Your task to perform on an android device: check google app version Image 0: 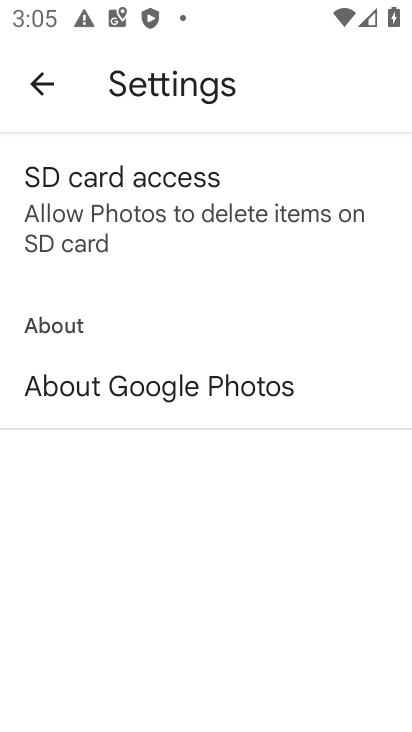
Step 0: press home button
Your task to perform on an android device: check google app version Image 1: 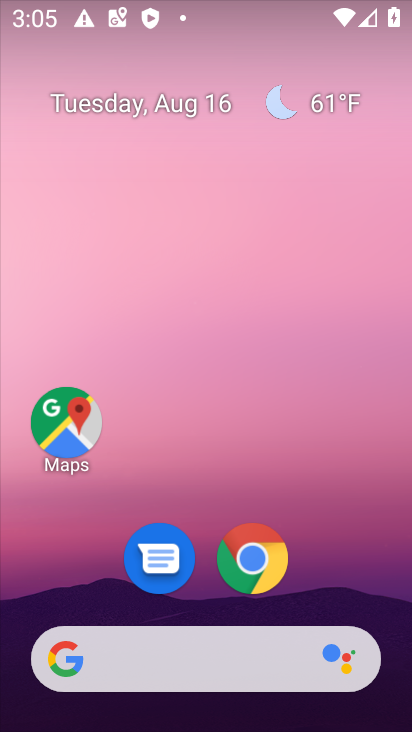
Step 1: click (246, 563)
Your task to perform on an android device: check google app version Image 2: 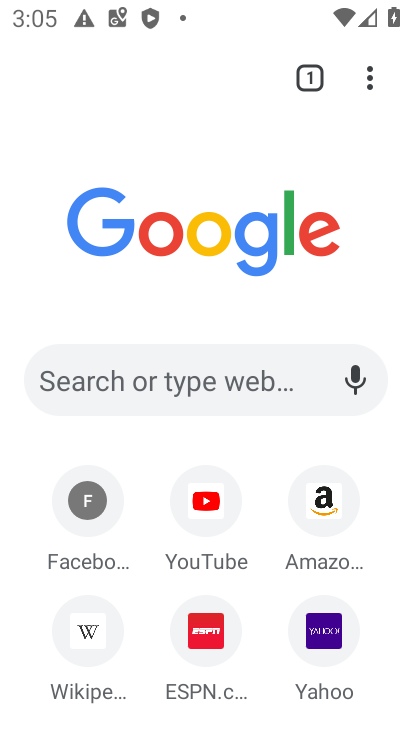
Step 2: click (367, 89)
Your task to perform on an android device: check google app version Image 3: 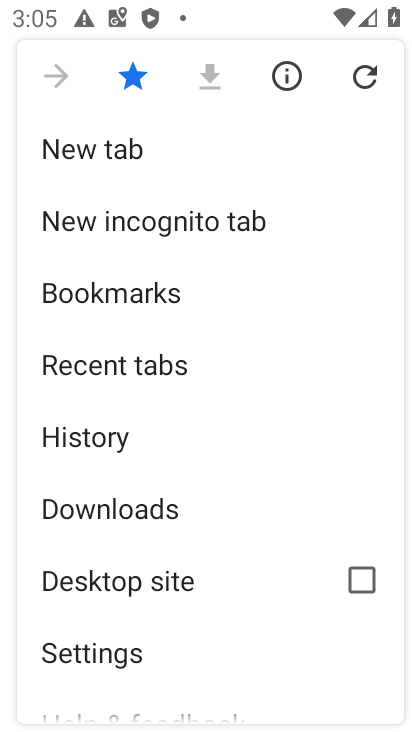
Step 3: drag from (207, 604) to (232, 276)
Your task to perform on an android device: check google app version Image 4: 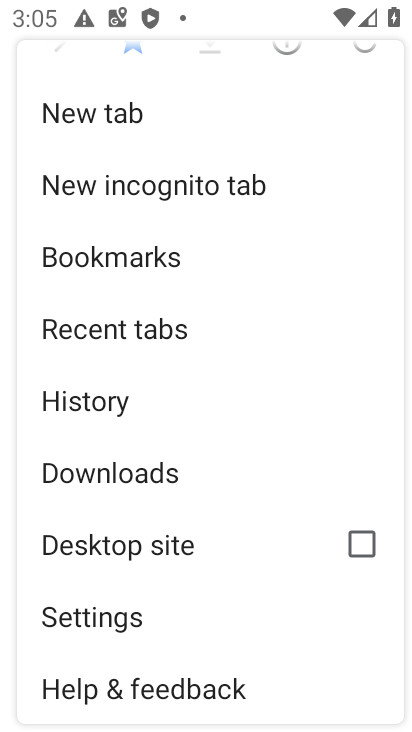
Step 4: click (103, 622)
Your task to perform on an android device: check google app version Image 5: 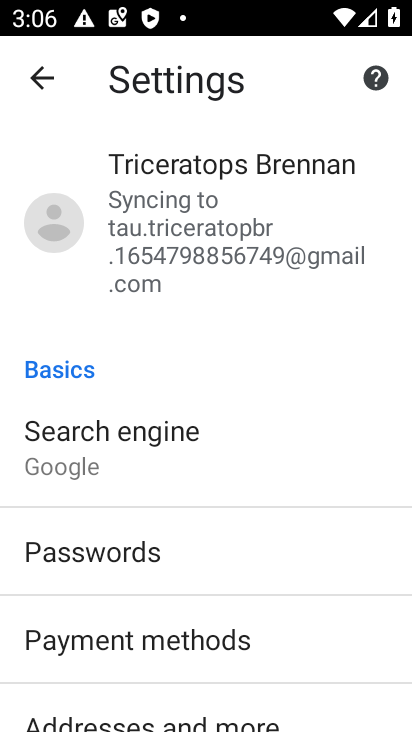
Step 5: drag from (300, 605) to (294, 288)
Your task to perform on an android device: check google app version Image 6: 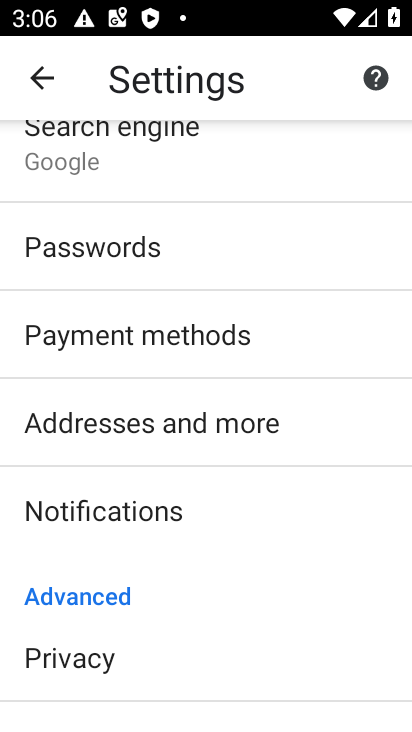
Step 6: drag from (275, 662) to (282, 281)
Your task to perform on an android device: check google app version Image 7: 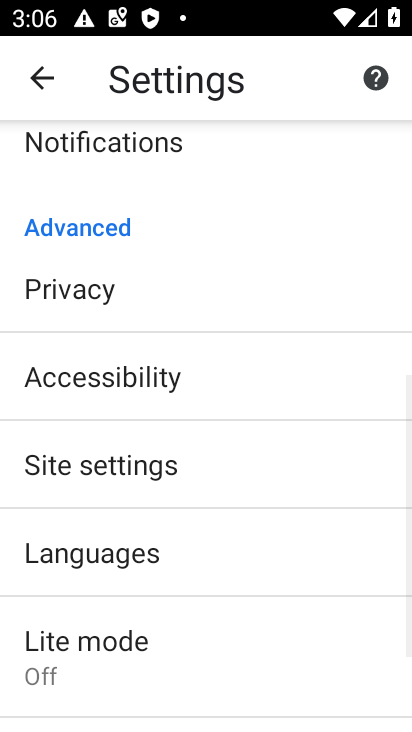
Step 7: drag from (241, 669) to (234, 186)
Your task to perform on an android device: check google app version Image 8: 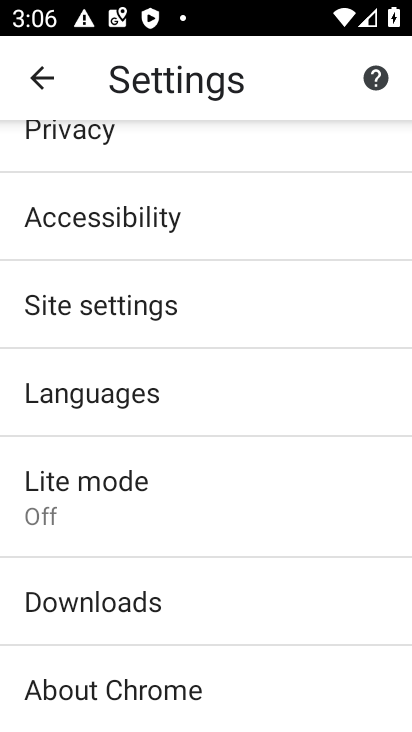
Step 8: click (115, 694)
Your task to perform on an android device: check google app version Image 9: 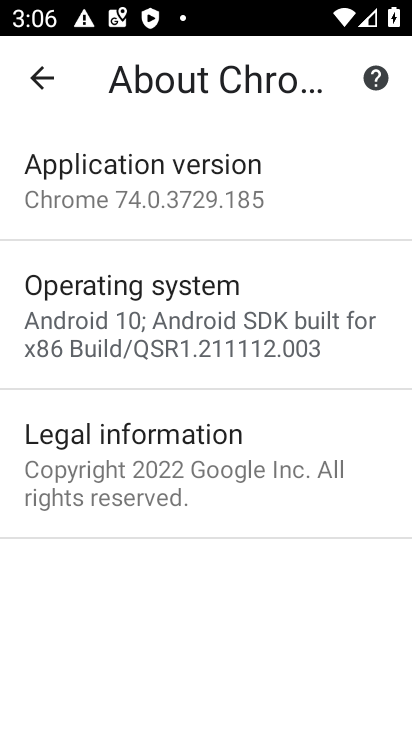
Step 9: click (185, 167)
Your task to perform on an android device: check google app version Image 10: 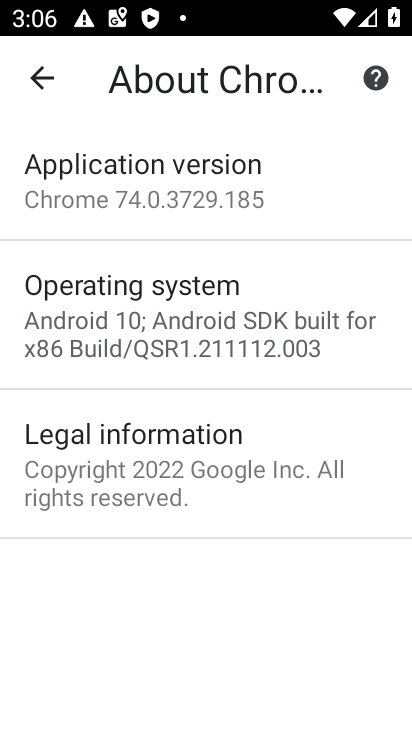
Step 10: task complete